Your task to perform on an android device: See recent photos Image 0: 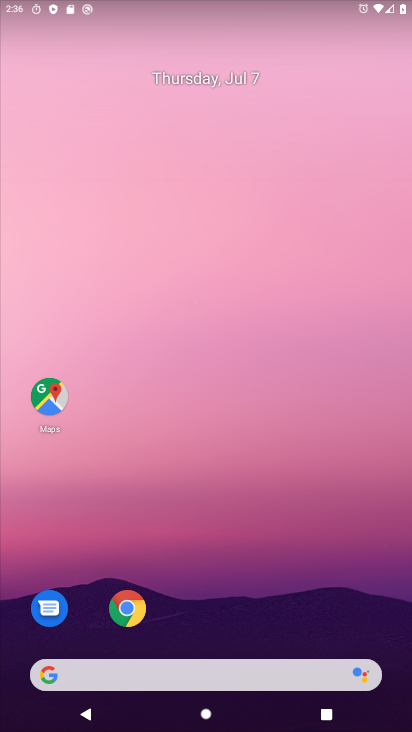
Step 0: drag from (256, 708) to (229, 508)
Your task to perform on an android device: See recent photos Image 1: 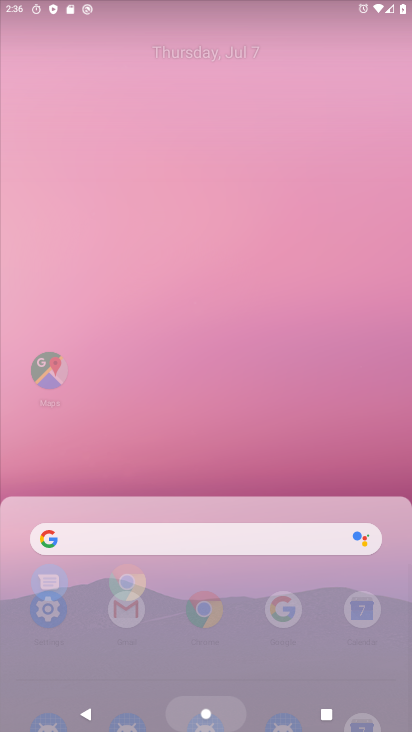
Step 1: drag from (190, 143) to (186, 101)
Your task to perform on an android device: See recent photos Image 2: 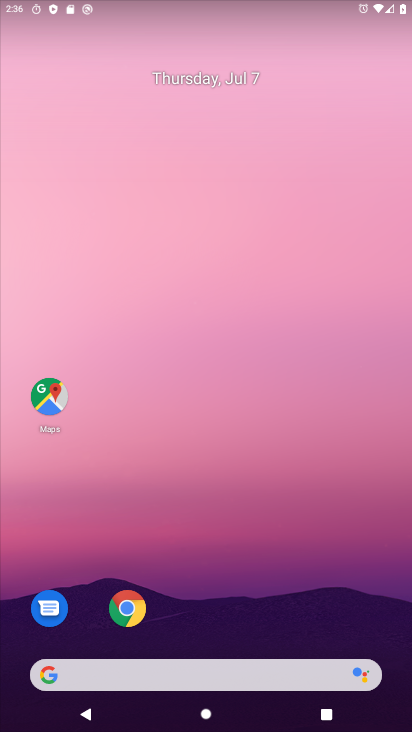
Step 2: drag from (284, 696) to (247, 65)
Your task to perform on an android device: See recent photos Image 3: 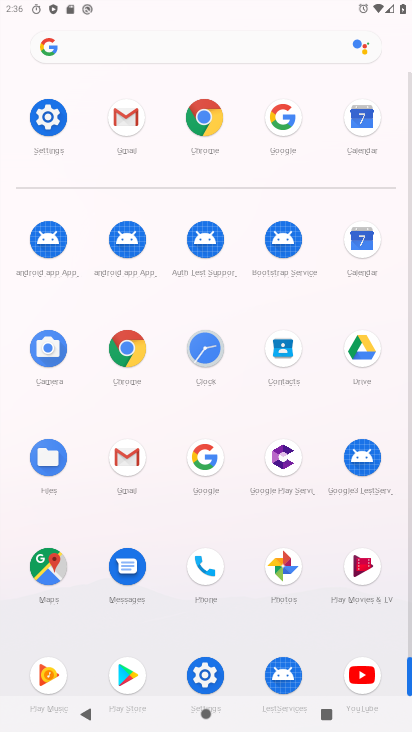
Step 3: click (281, 565)
Your task to perform on an android device: See recent photos Image 4: 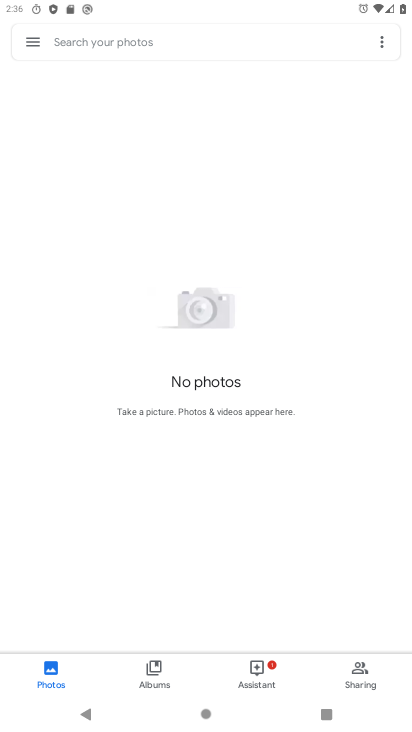
Step 4: task complete